Your task to perform on an android device: Open calendar and show me the second week of next month Image 0: 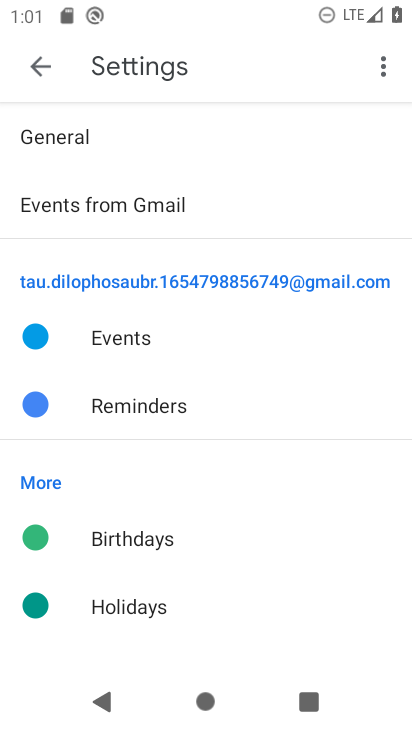
Step 0: press home button
Your task to perform on an android device: Open calendar and show me the second week of next month Image 1: 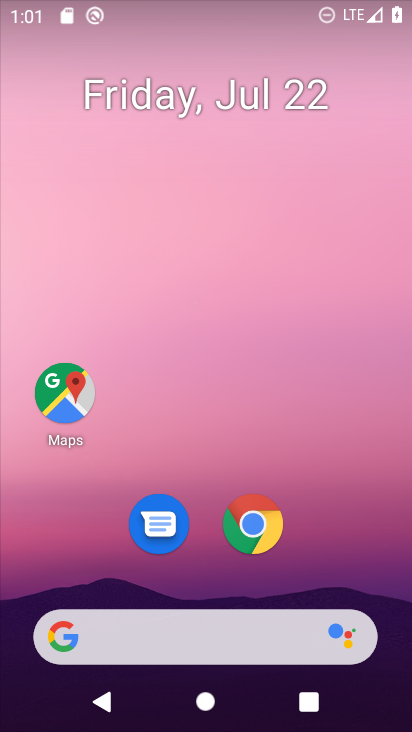
Step 1: drag from (305, 555) to (358, 75)
Your task to perform on an android device: Open calendar and show me the second week of next month Image 2: 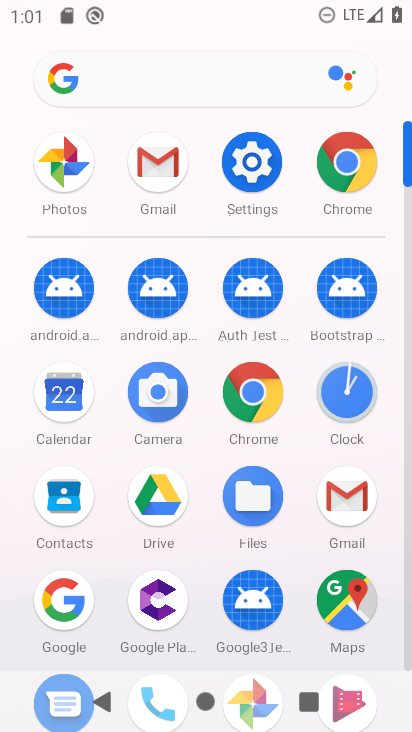
Step 2: click (69, 394)
Your task to perform on an android device: Open calendar and show me the second week of next month Image 3: 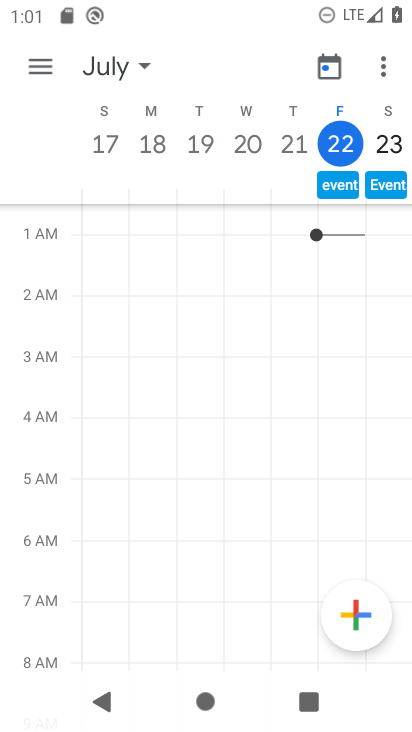
Step 3: task complete